Your task to perform on an android device: turn on the 24-hour format for clock Image 0: 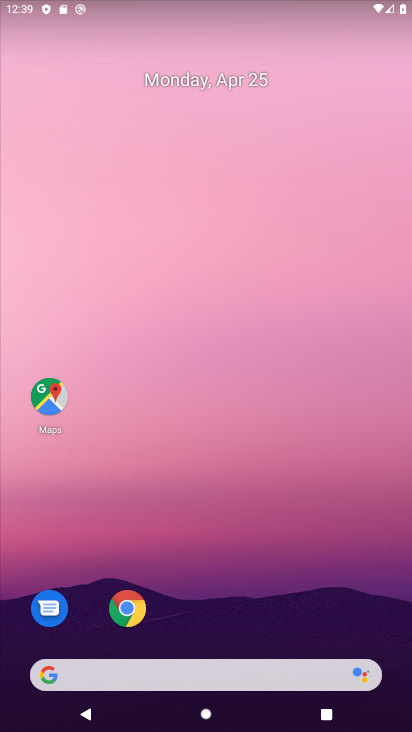
Step 0: drag from (212, 593) to (206, 37)
Your task to perform on an android device: turn on the 24-hour format for clock Image 1: 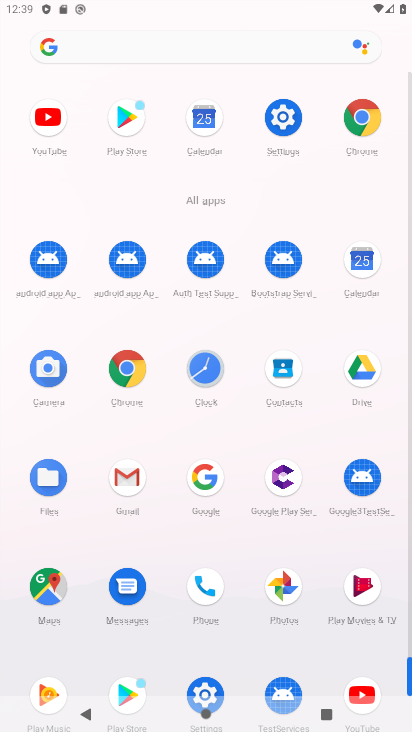
Step 1: click (211, 373)
Your task to perform on an android device: turn on the 24-hour format for clock Image 2: 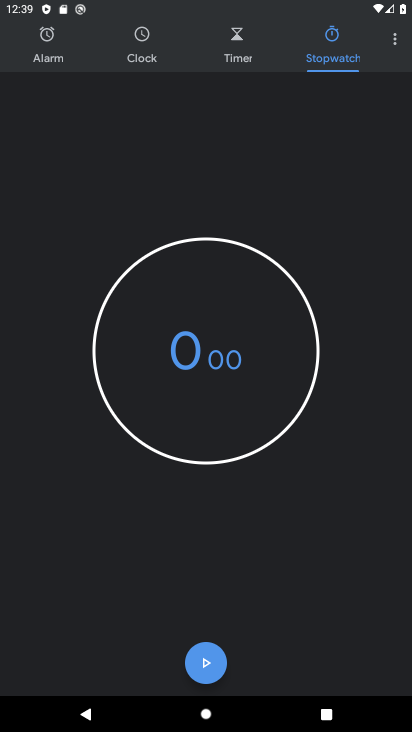
Step 2: click (401, 59)
Your task to perform on an android device: turn on the 24-hour format for clock Image 3: 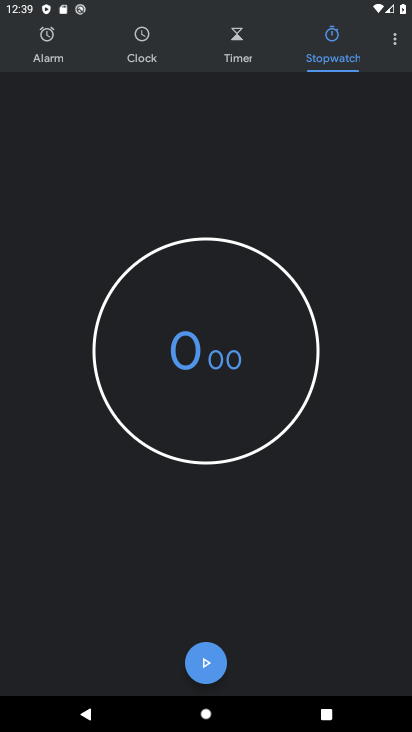
Step 3: click (401, 59)
Your task to perform on an android device: turn on the 24-hour format for clock Image 4: 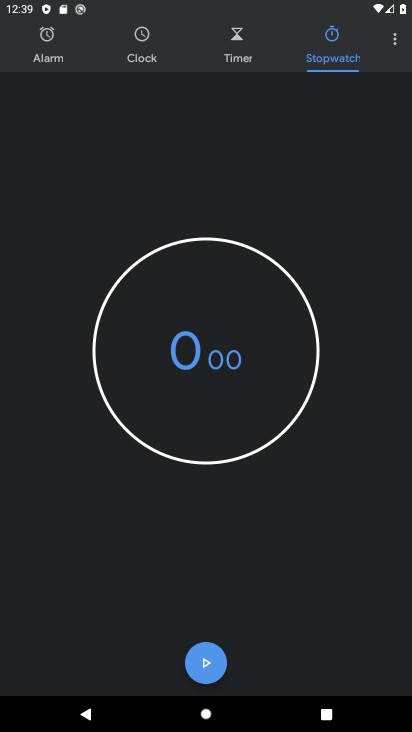
Step 4: click (396, 56)
Your task to perform on an android device: turn on the 24-hour format for clock Image 5: 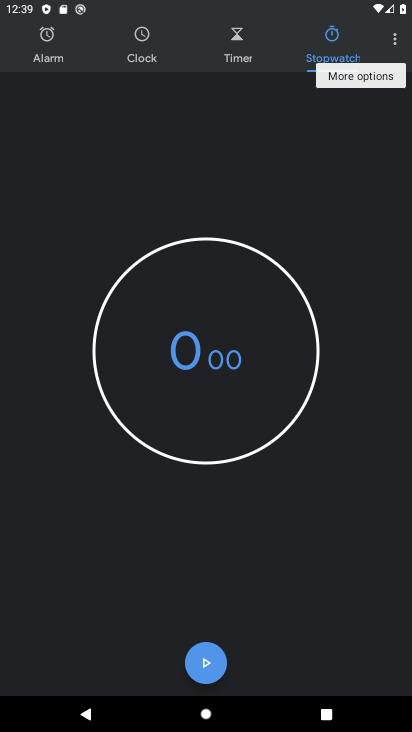
Step 5: click (395, 47)
Your task to perform on an android device: turn on the 24-hour format for clock Image 6: 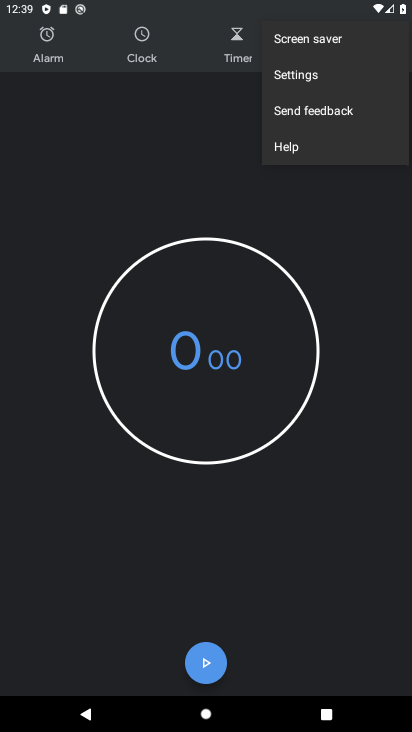
Step 6: click (349, 82)
Your task to perform on an android device: turn on the 24-hour format for clock Image 7: 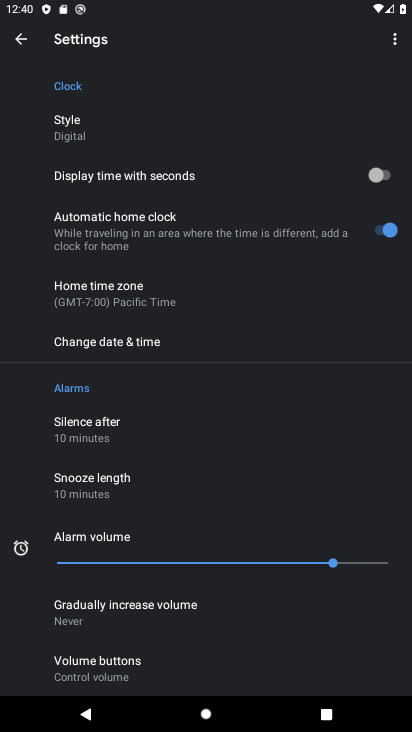
Step 7: click (315, 341)
Your task to perform on an android device: turn on the 24-hour format for clock Image 8: 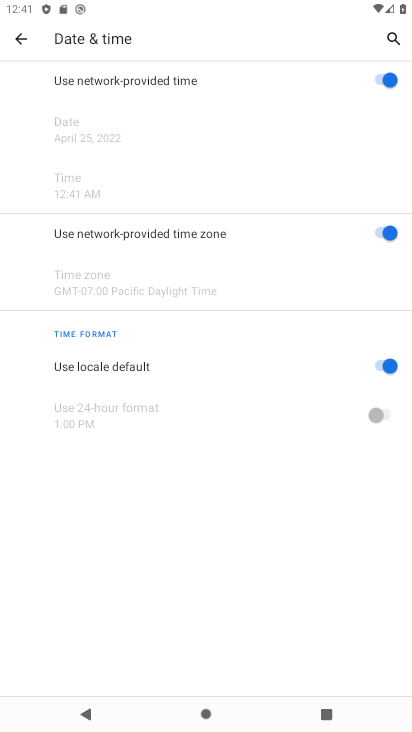
Step 8: click (380, 367)
Your task to perform on an android device: turn on the 24-hour format for clock Image 9: 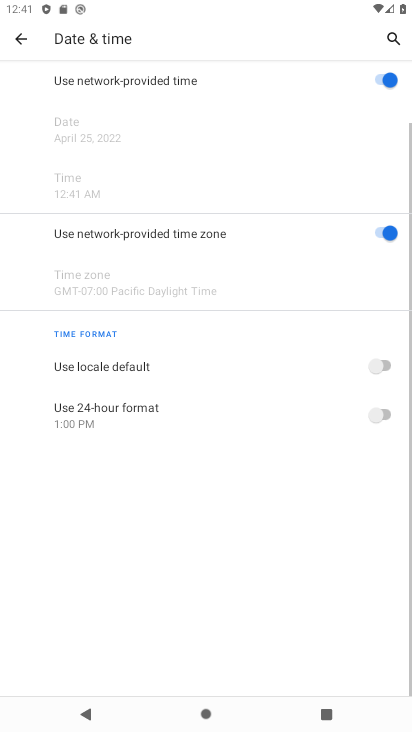
Step 9: click (378, 421)
Your task to perform on an android device: turn on the 24-hour format for clock Image 10: 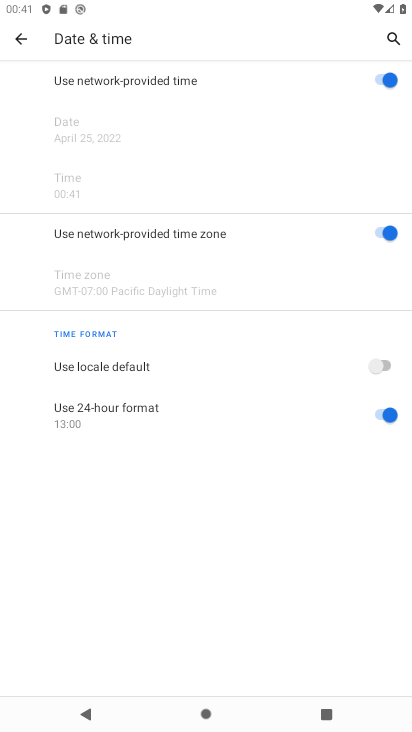
Step 10: task complete